Your task to perform on an android device: refresh tabs in the chrome app Image 0: 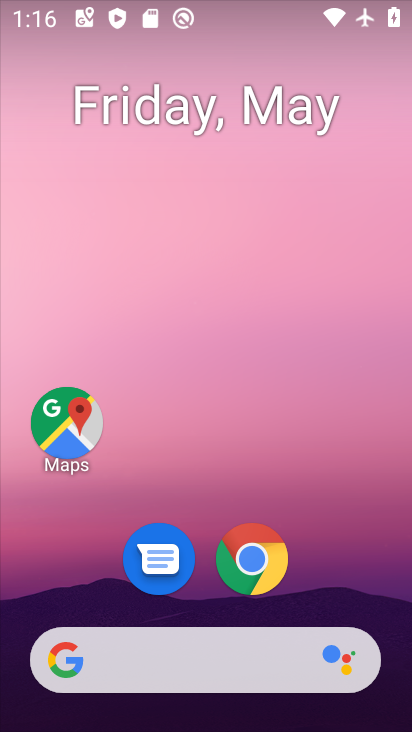
Step 0: drag from (296, 554) to (268, 99)
Your task to perform on an android device: refresh tabs in the chrome app Image 1: 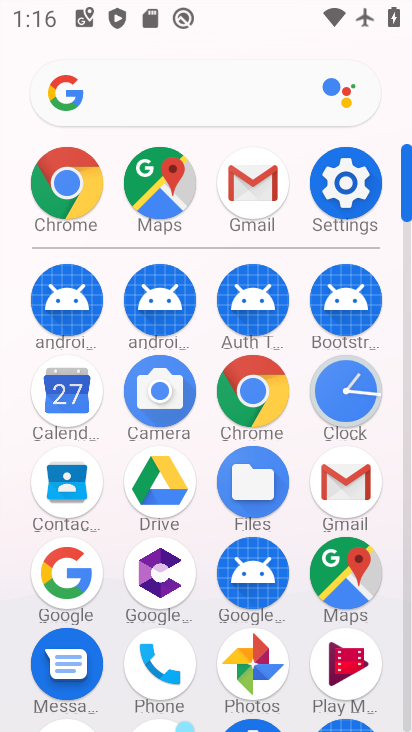
Step 1: click (253, 384)
Your task to perform on an android device: refresh tabs in the chrome app Image 2: 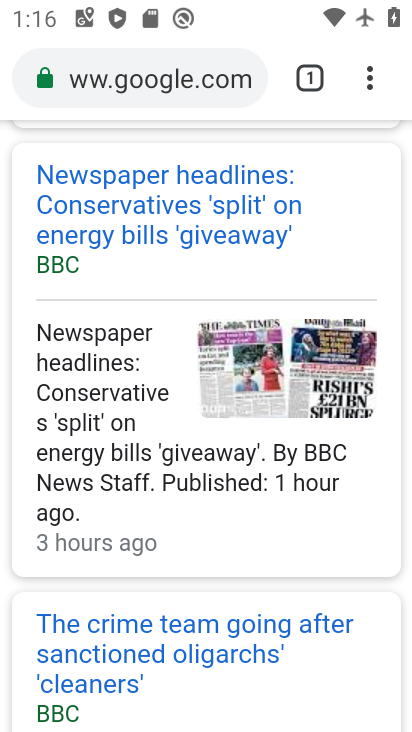
Step 2: click (361, 69)
Your task to perform on an android device: refresh tabs in the chrome app Image 3: 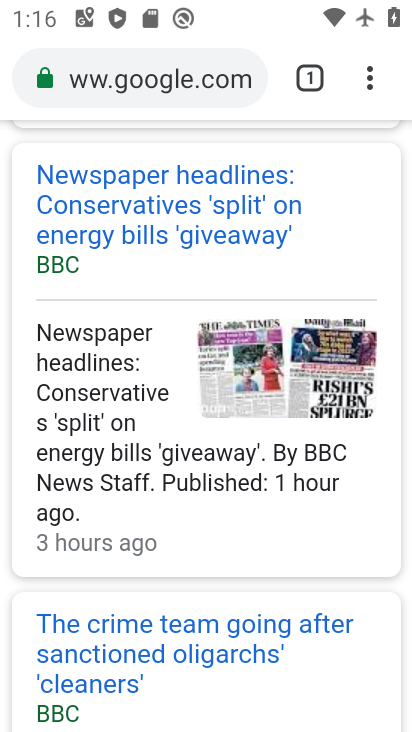
Step 3: task complete